Your task to perform on an android device: Open Chrome and go to settings Image 0: 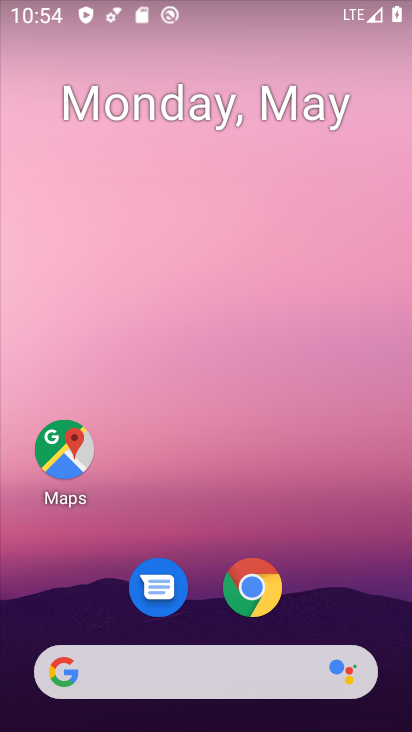
Step 0: drag from (394, 626) to (327, 236)
Your task to perform on an android device: Open Chrome and go to settings Image 1: 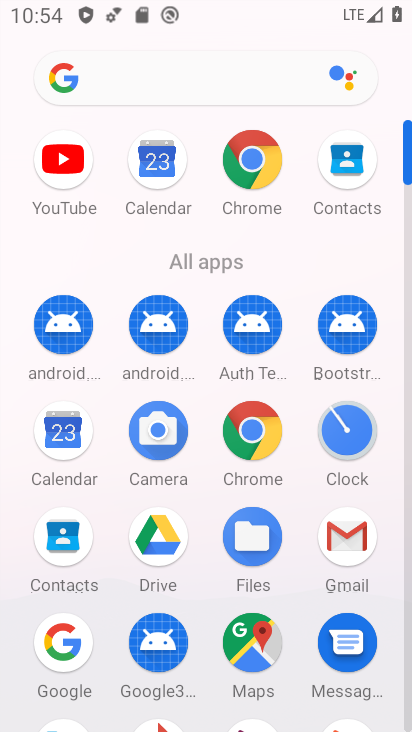
Step 1: click (257, 163)
Your task to perform on an android device: Open Chrome and go to settings Image 2: 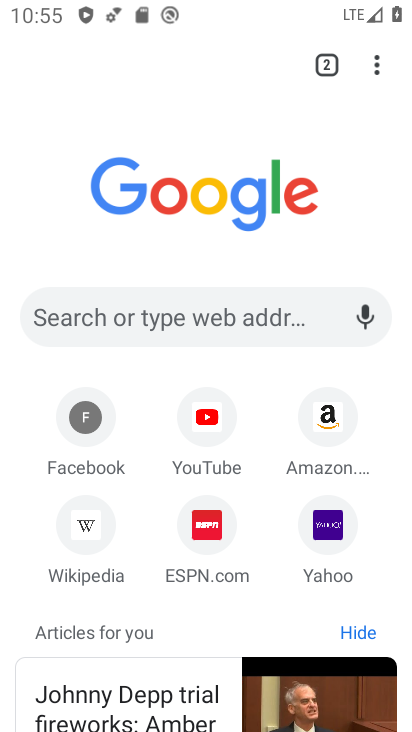
Step 2: click (376, 75)
Your task to perform on an android device: Open Chrome and go to settings Image 3: 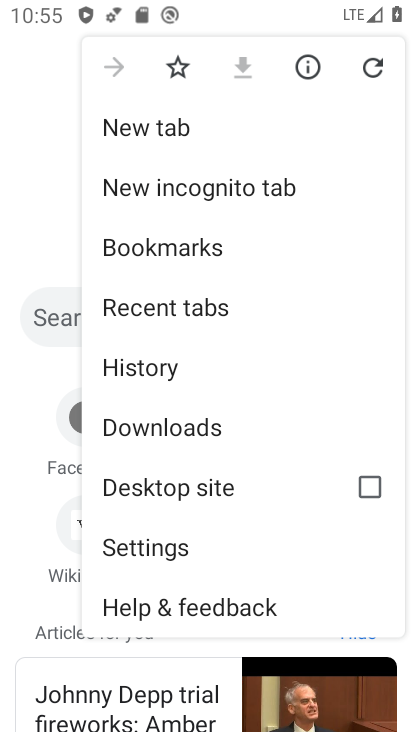
Step 3: click (219, 546)
Your task to perform on an android device: Open Chrome and go to settings Image 4: 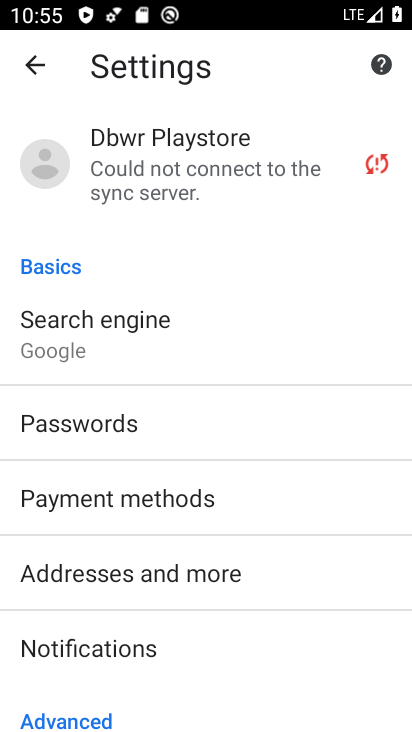
Step 4: task complete